Your task to perform on an android device: Open my contact list Image 0: 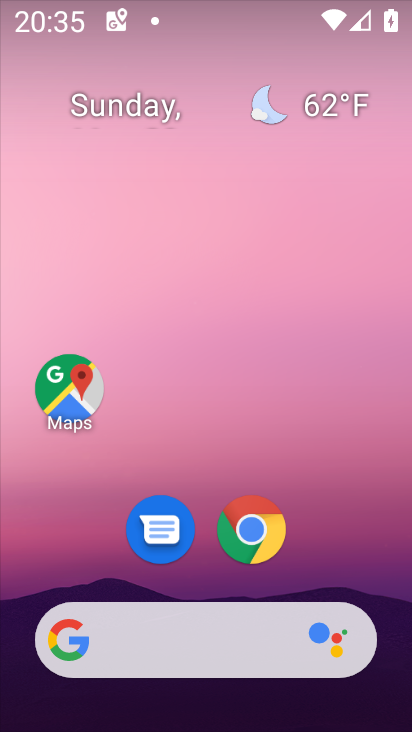
Step 0: drag from (276, 637) to (209, 212)
Your task to perform on an android device: Open my contact list Image 1: 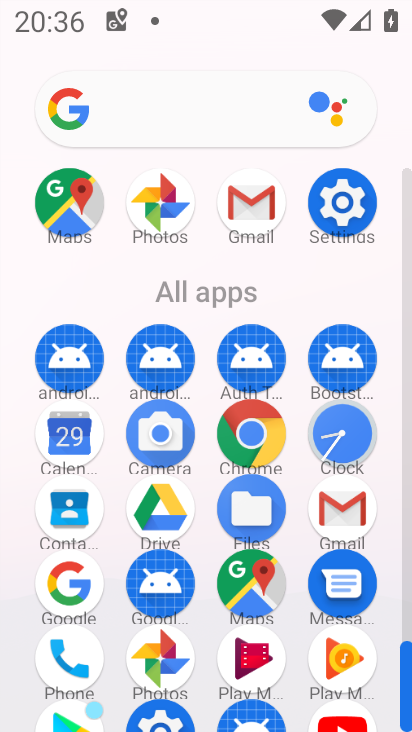
Step 1: click (65, 507)
Your task to perform on an android device: Open my contact list Image 2: 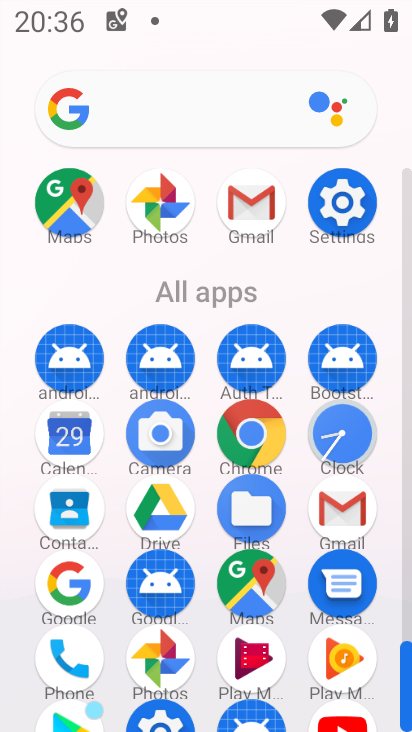
Step 2: click (65, 507)
Your task to perform on an android device: Open my contact list Image 3: 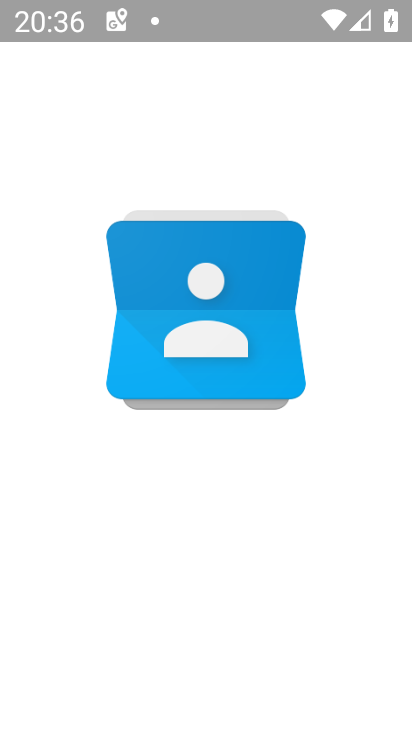
Step 3: click (69, 506)
Your task to perform on an android device: Open my contact list Image 4: 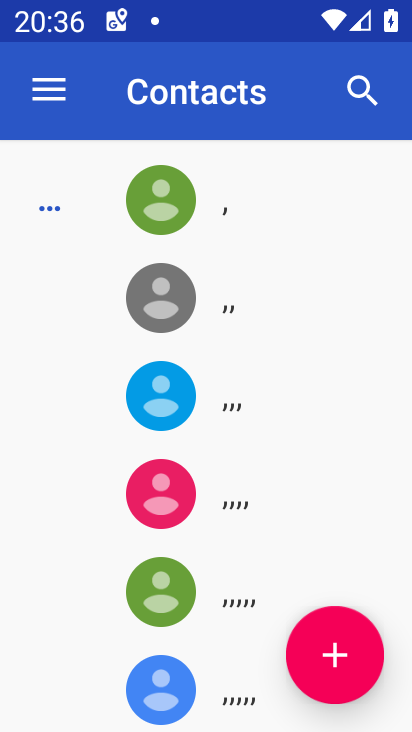
Step 4: task complete